Your task to perform on an android device: change the clock style Image 0: 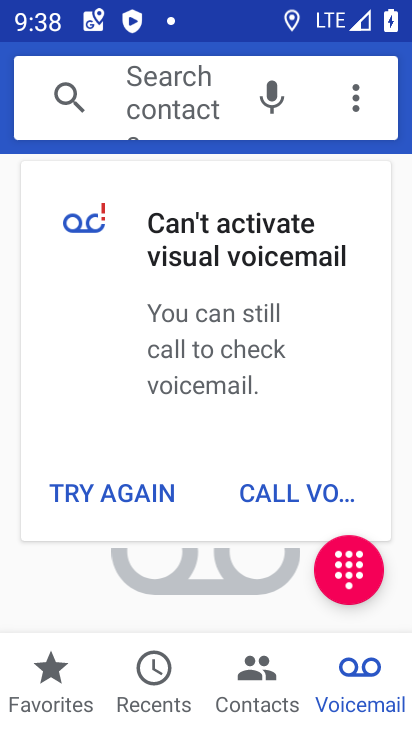
Step 0: press home button
Your task to perform on an android device: change the clock style Image 1: 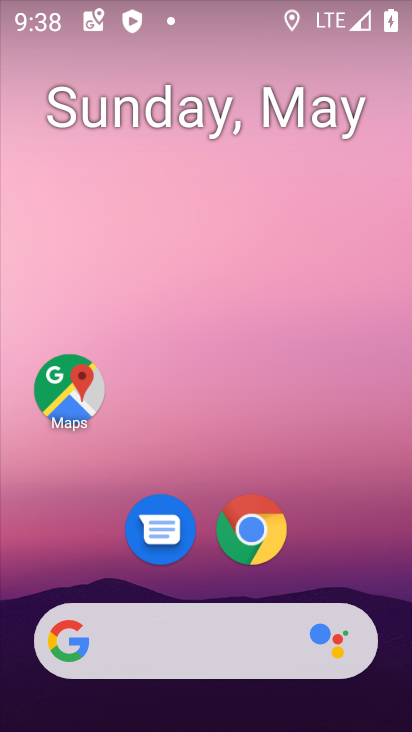
Step 1: drag from (371, 554) to (356, 180)
Your task to perform on an android device: change the clock style Image 2: 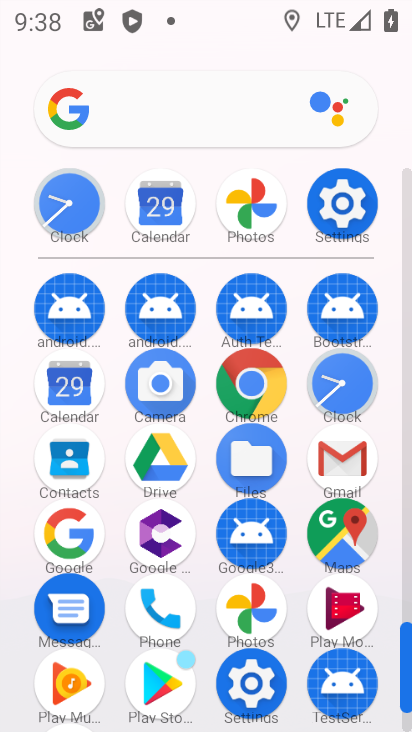
Step 2: click (81, 209)
Your task to perform on an android device: change the clock style Image 3: 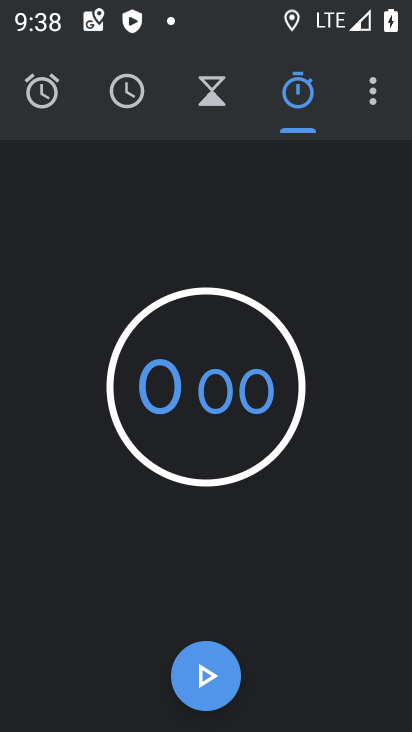
Step 3: click (383, 84)
Your task to perform on an android device: change the clock style Image 4: 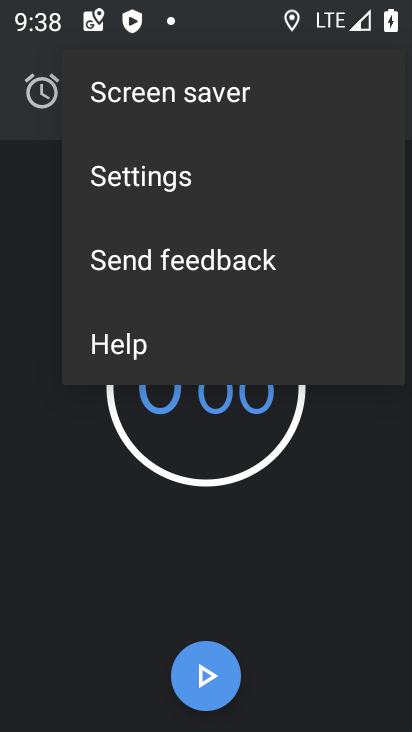
Step 4: click (165, 170)
Your task to perform on an android device: change the clock style Image 5: 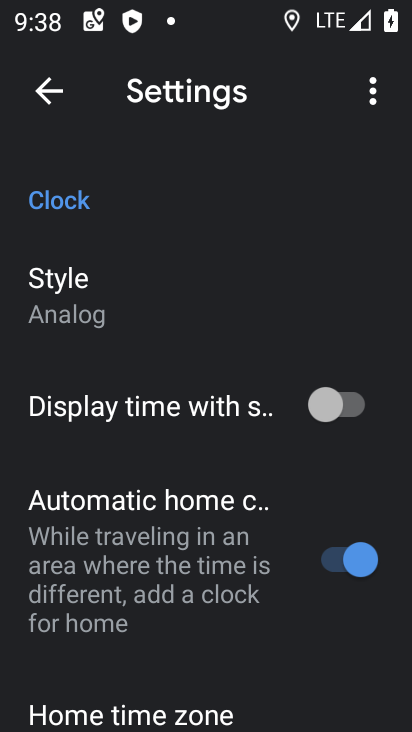
Step 5: click (94, 317)
Your task to perform on an android device: change the clock style Image 6: 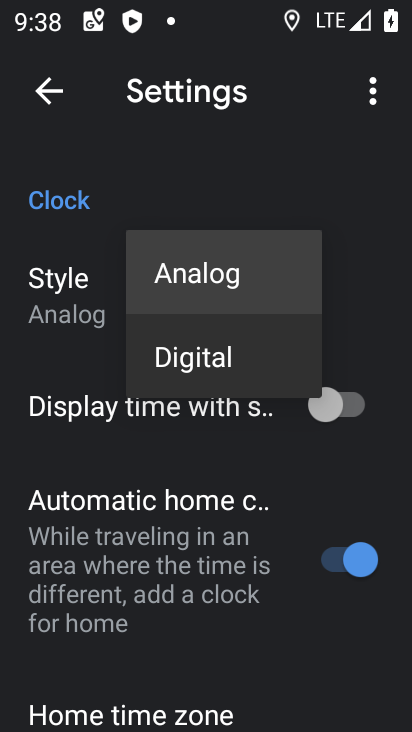
Step 6: click (181, 344)
Your task to perform on an android device: change the clock style Image 7: 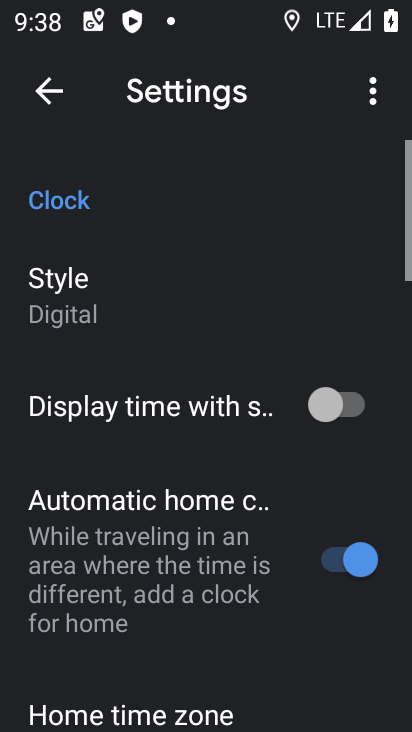
Step 7: task complete